Your task to perform on an android device: turn off data saver in the chrome app Image 0: 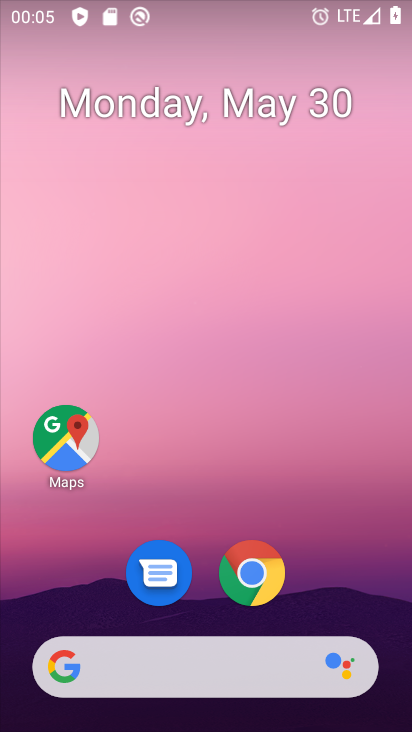
Step 0: drag from (342, 521) to (269, 18)
Your task to perform on an android device: turn off data saver in the chrome app Image 1: 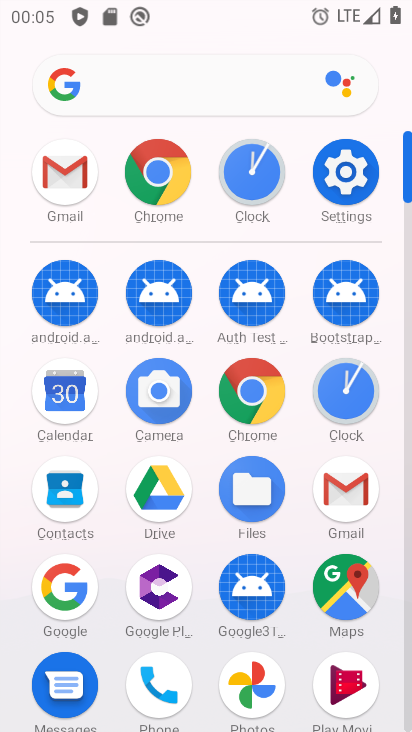
Step 1: click (251, 398)
Your task to perform on an android device: turn off data saver in the chrome app Image 2: 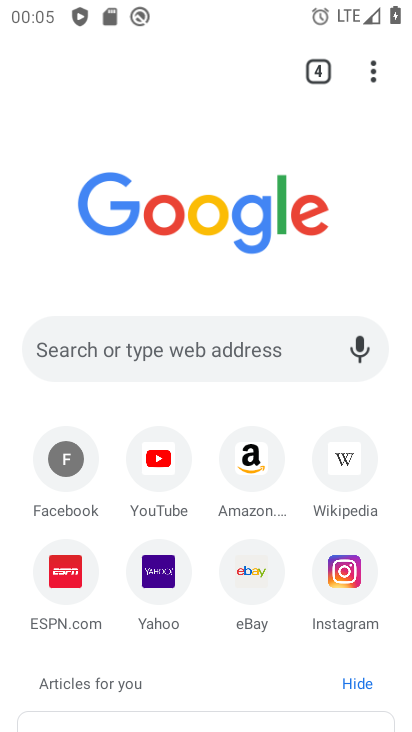
Step 2: click (378, 77)
Your task to perform on an android device: turn off data saver in the chrome app Image 3: 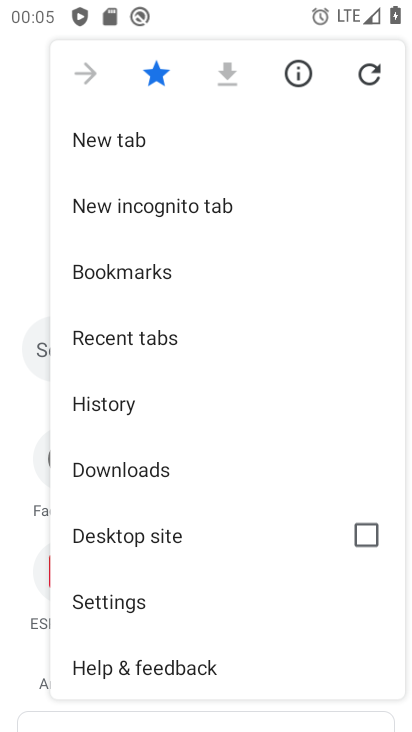
Step 3: click (217, 604)
Your task to perform on an android device: turn off data saver in the chrome app Image 4: 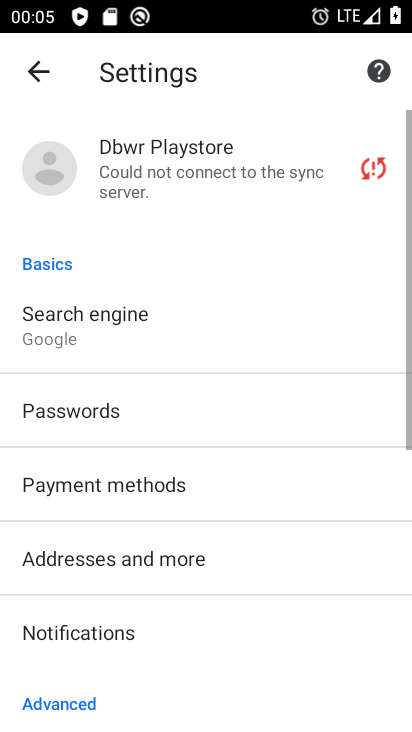
Step 4: drag from (221, 566) to (301, 4)
Your task to perform on an android device: turn off data saver in the chrome app Image 5: 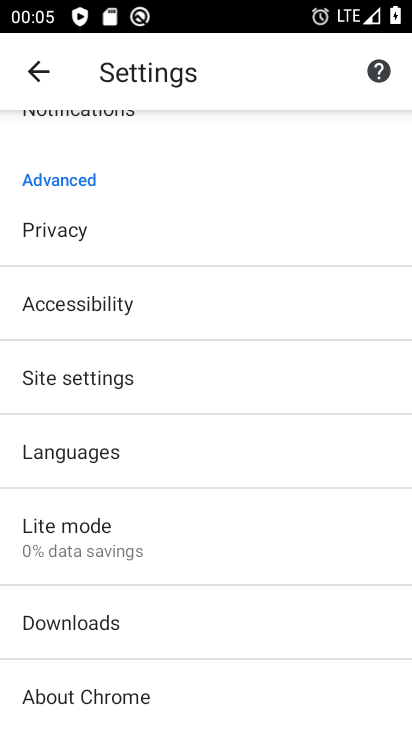
Step 5: click (146, 543)
Your task to perform on an android device: turn off data saver in the chrome app Image 6: 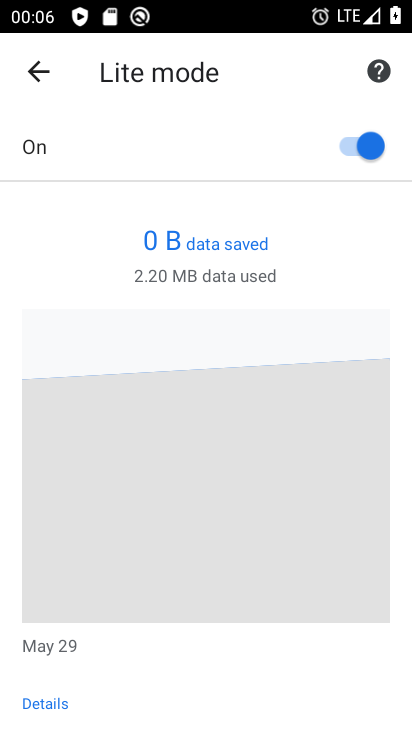
Step 6: click (370, 138)
Your task to perform on an android device: turn off data saver in the chrome app Image 7: 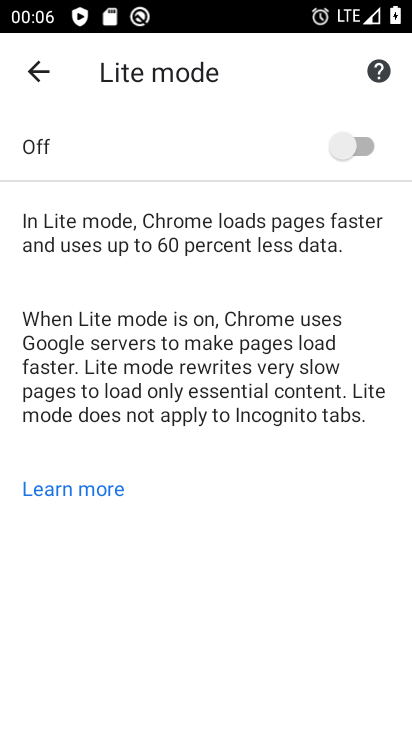
Step 7: task complete